Your task to perform on an android device: change timer sound Image 0: 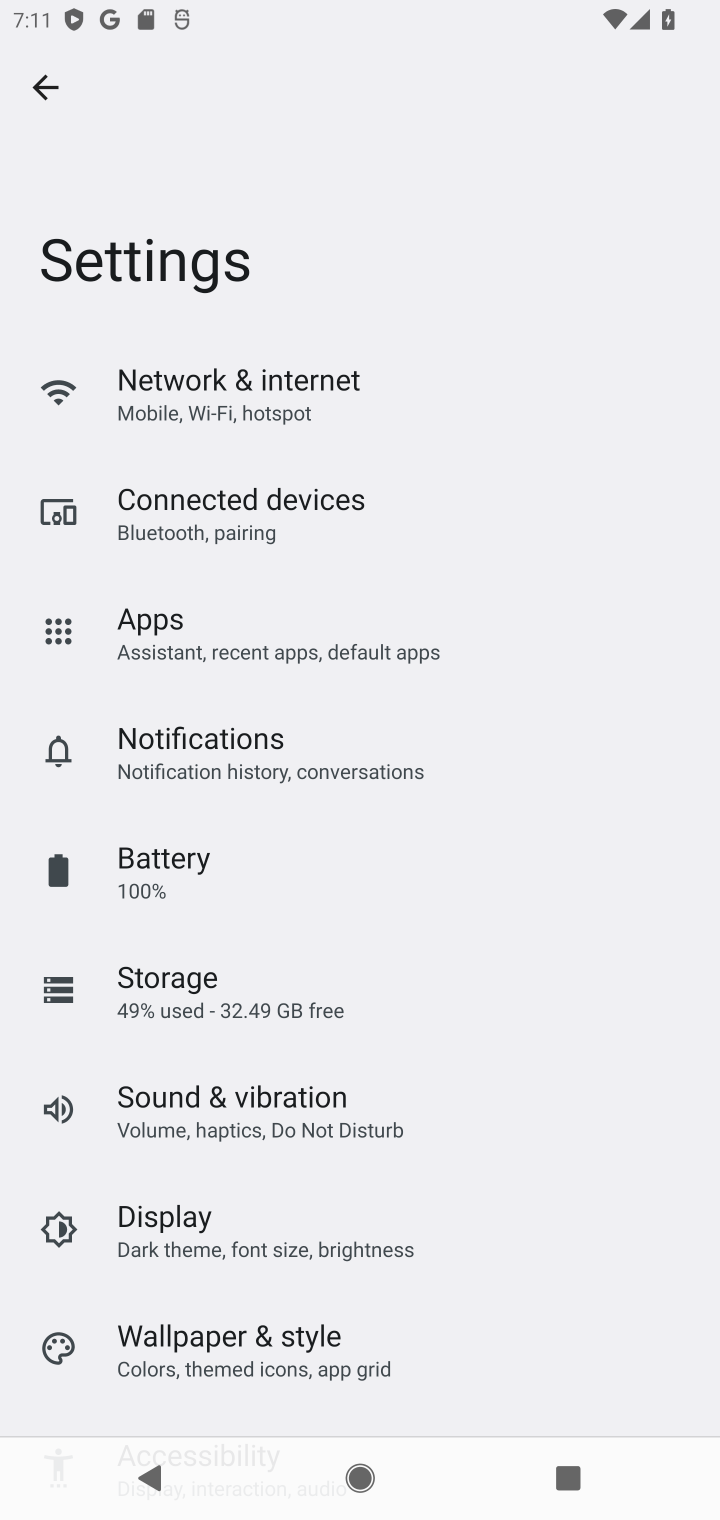
Step 0: press home button
Your task to perform on an android device: change timer sound Image 1: 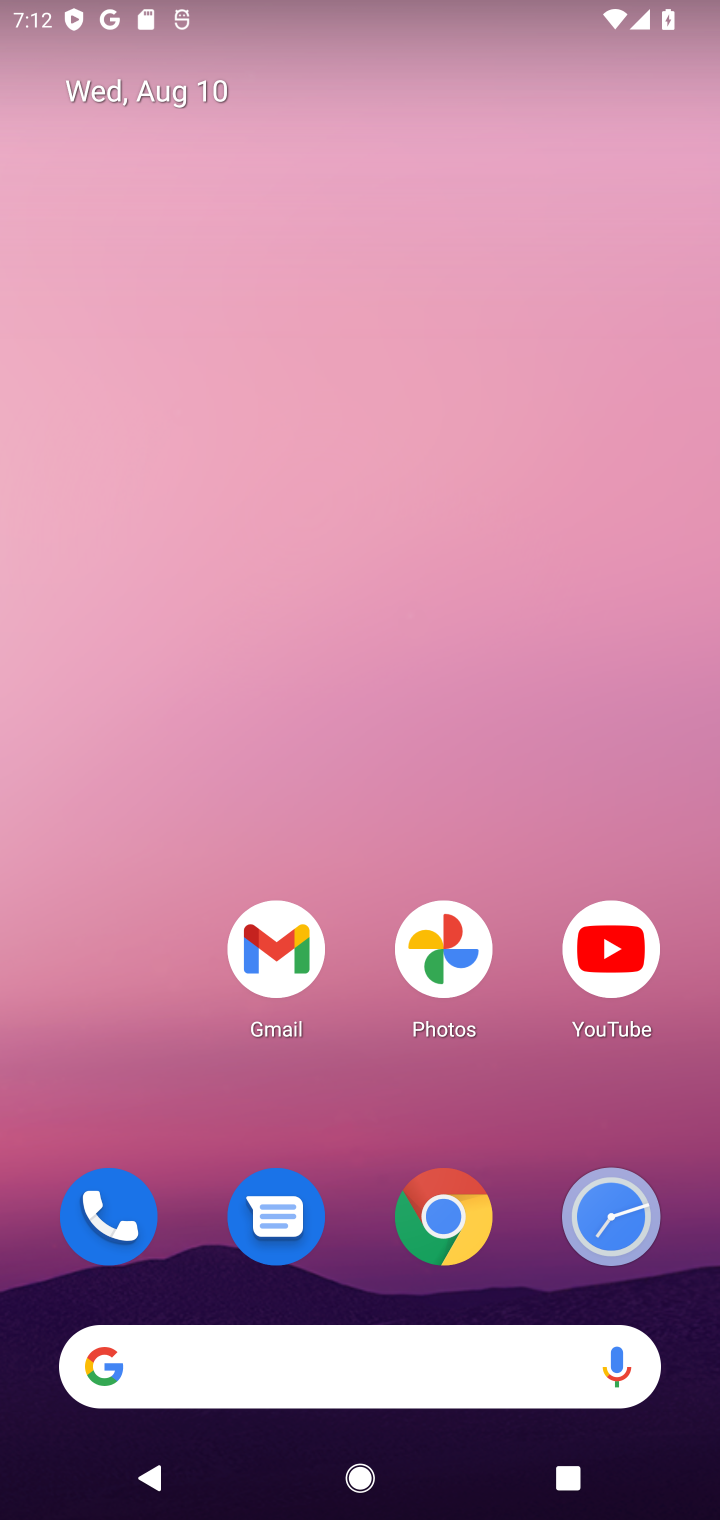
Step 1: click (595, 1204)
Your task to perform on an android device: change timer sound Image 2: 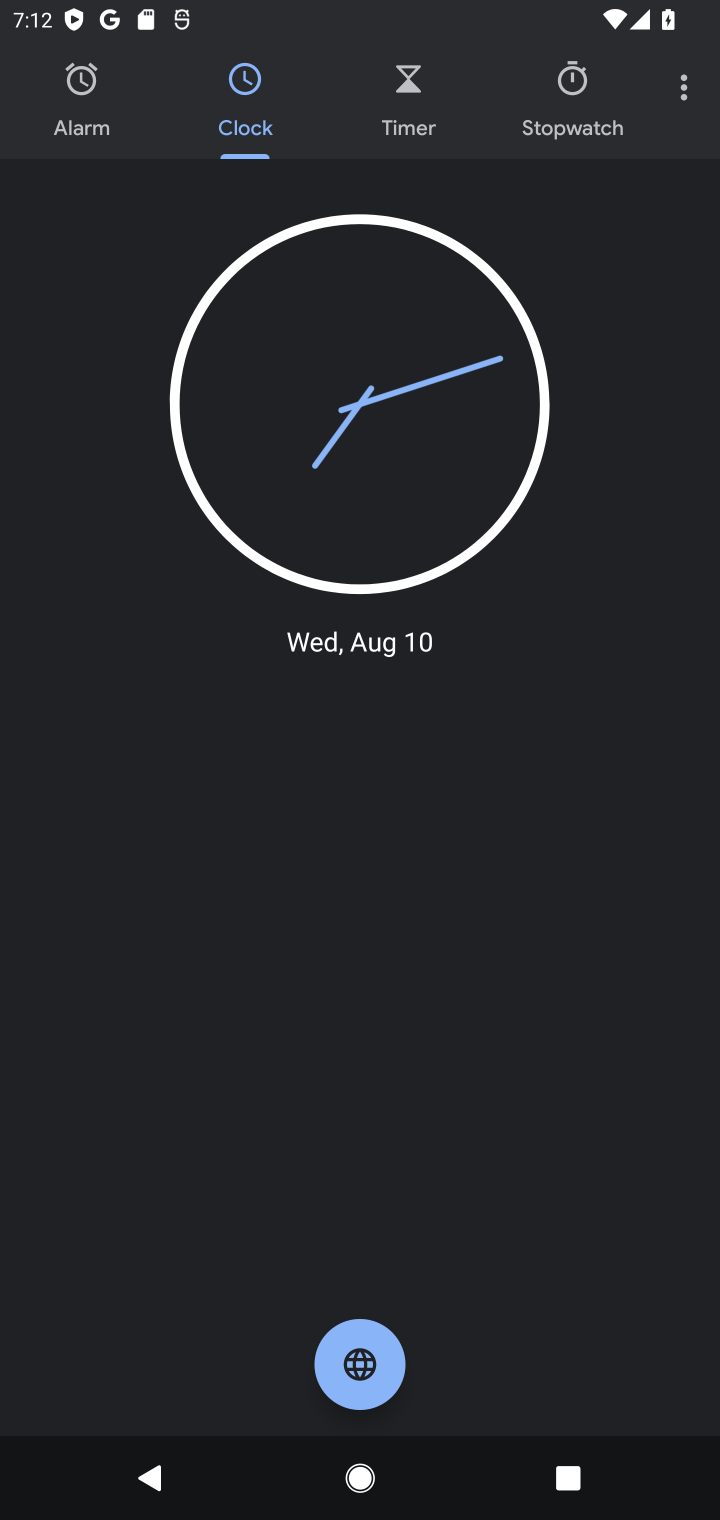
Step 2: click (681, 86)
Your task to perform on an android device: change timer sound Image 3: 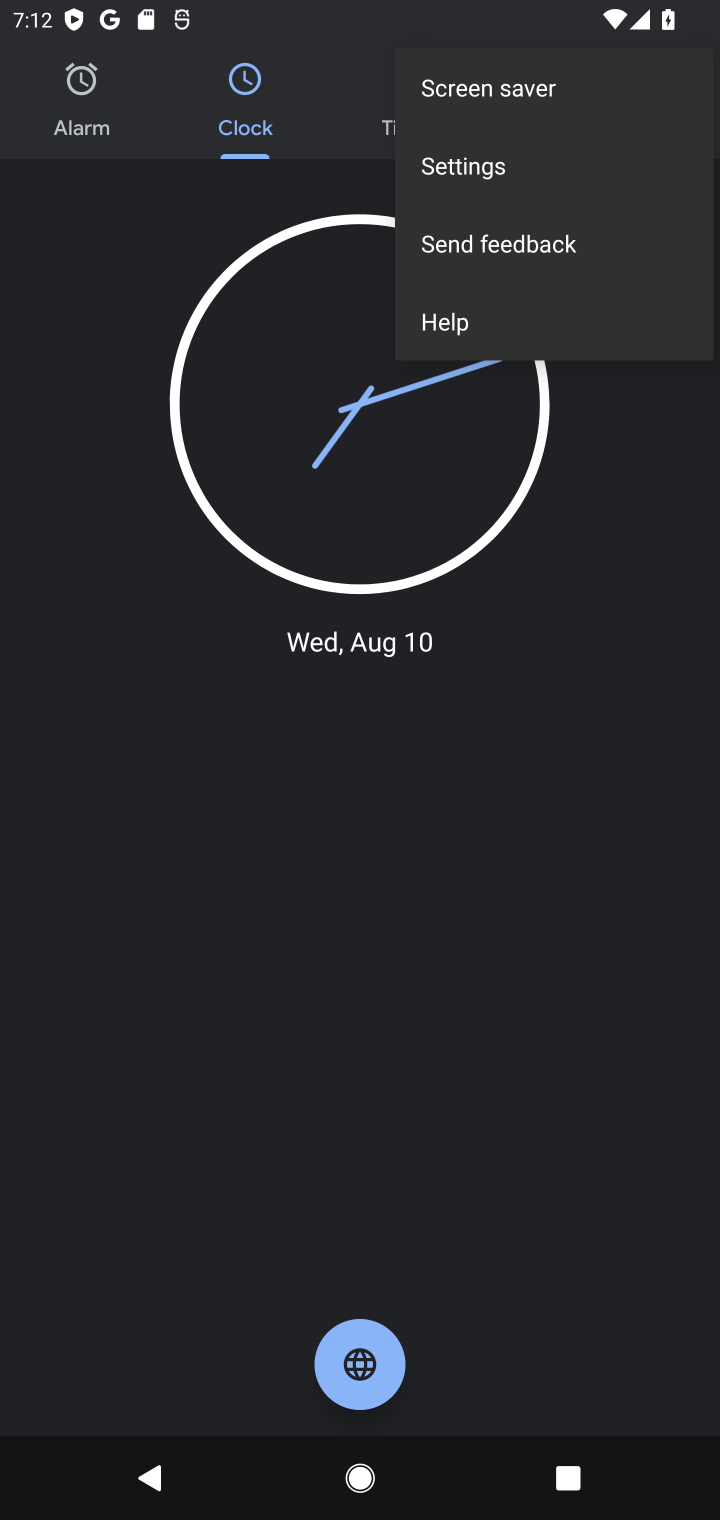
Step 3: click (475, 174)
Your task to perform on an android device: change timer sound Image 4: 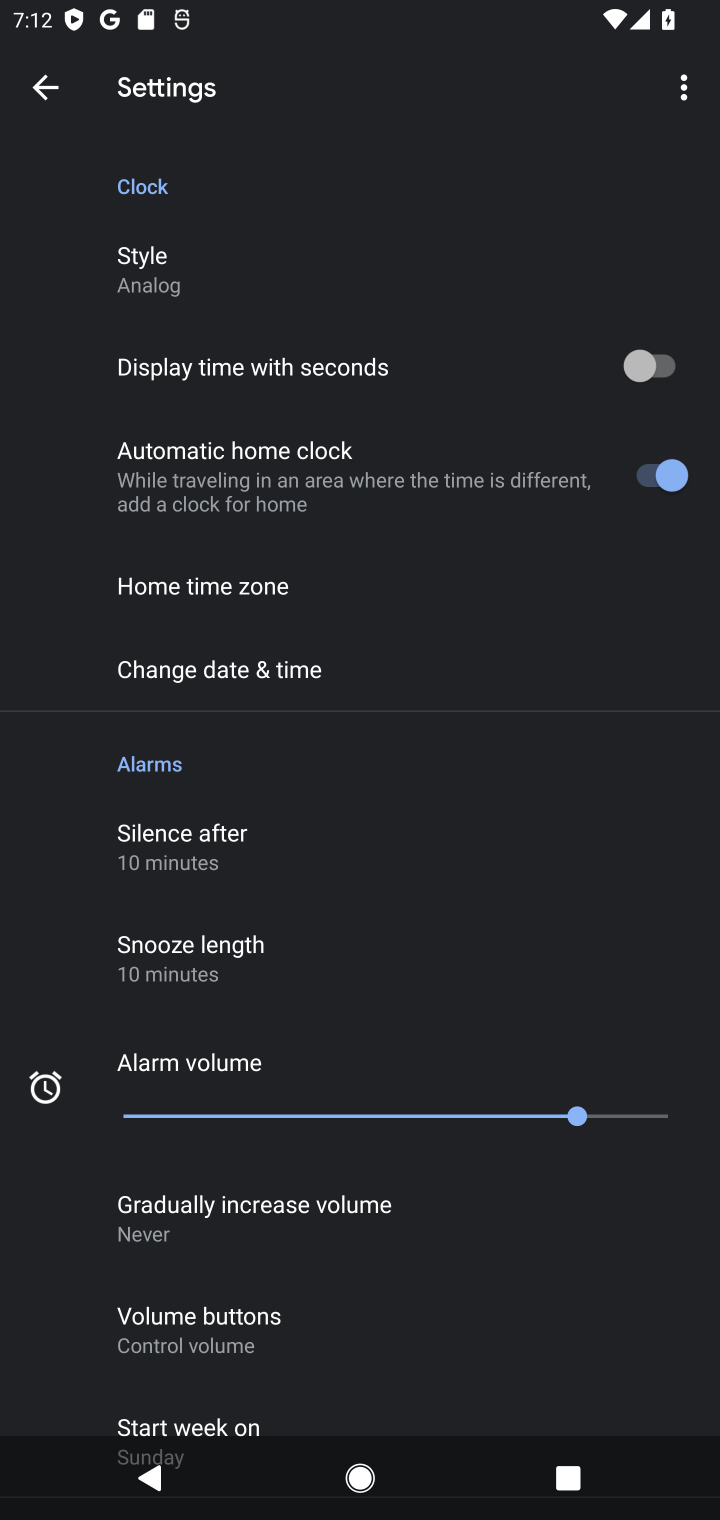
Step 4: drag from (0, 1388) to (228, 418)
Your task to perform on an android device: change timer sound Image 5: 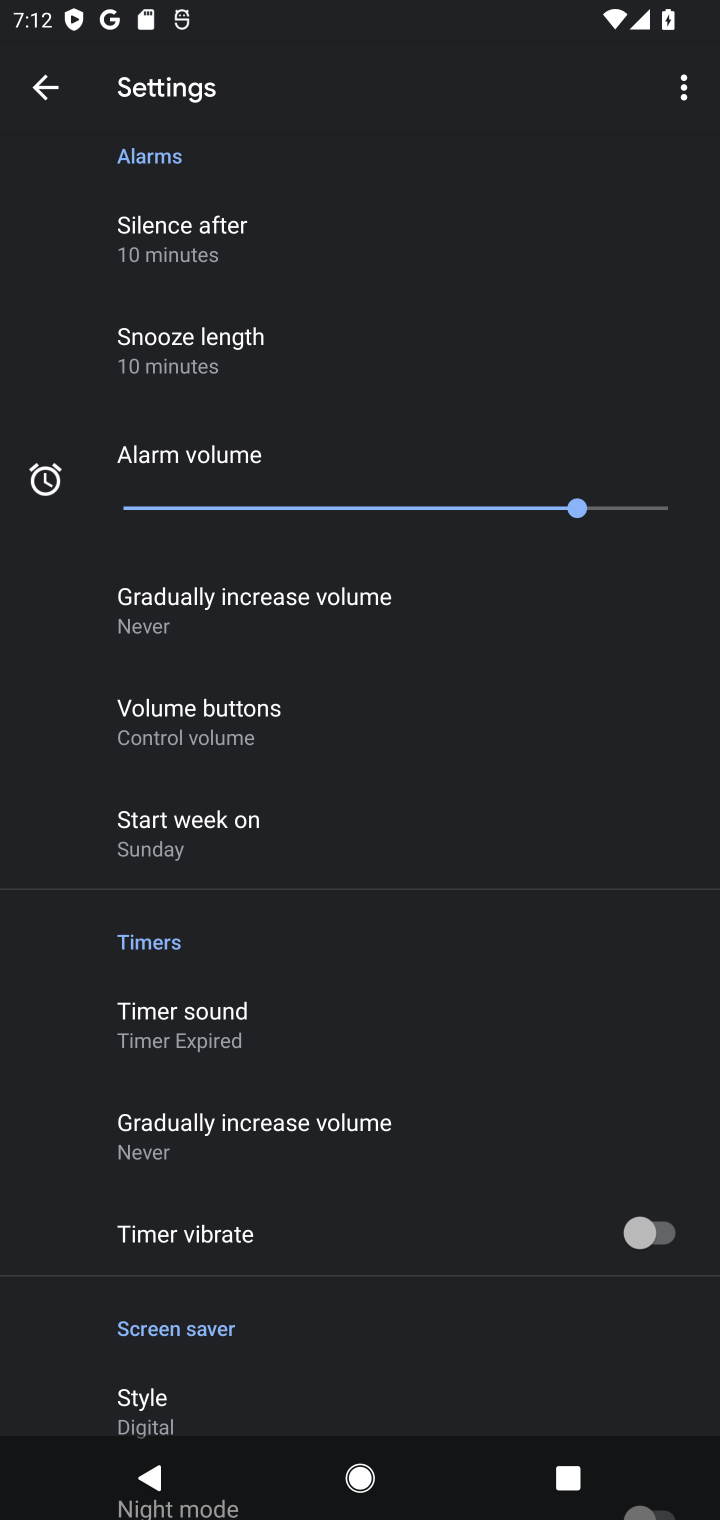
Step 5: click (242, 1042)
Your task to perform on an android device: change timer sound Image 6: 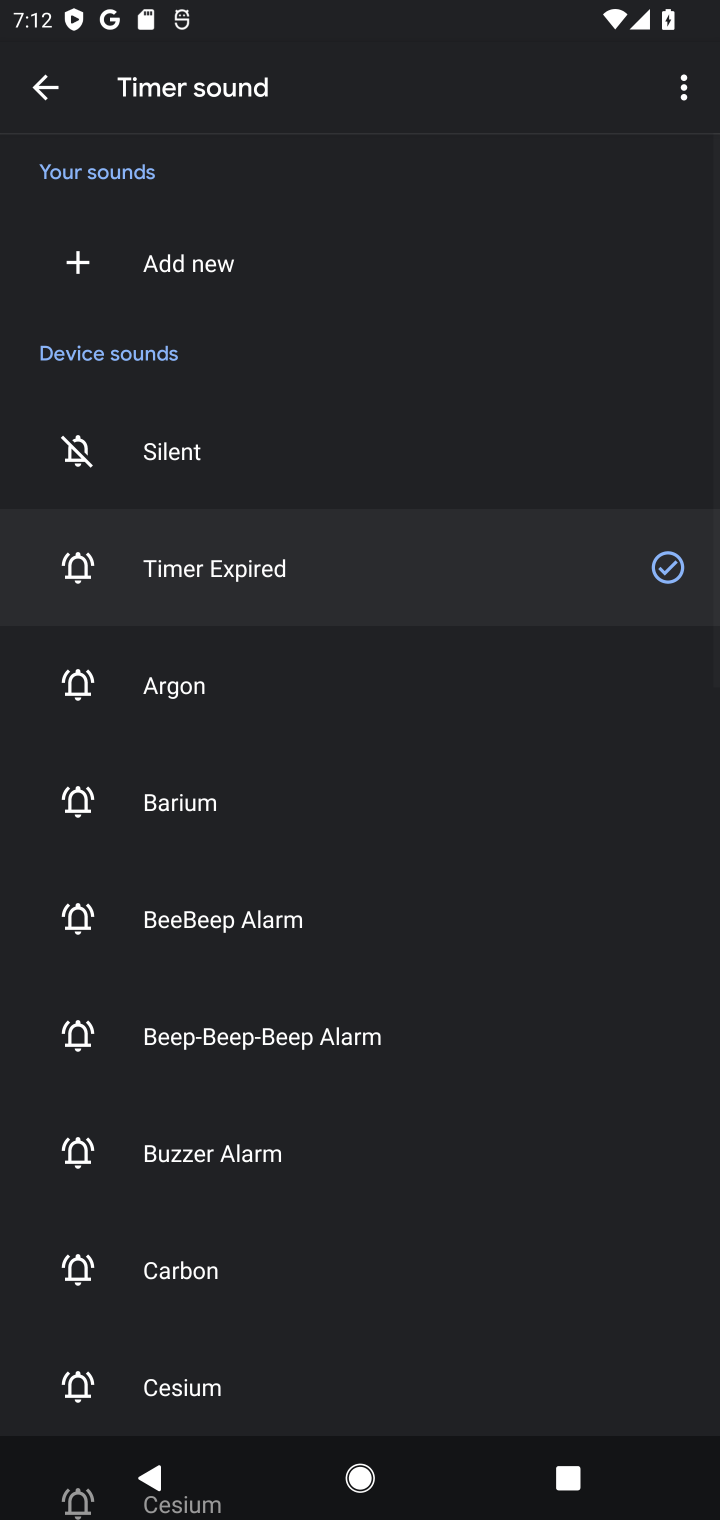
Step 6: click (186, 717)
Your task to perform on an android device: change timer sound Image 7: 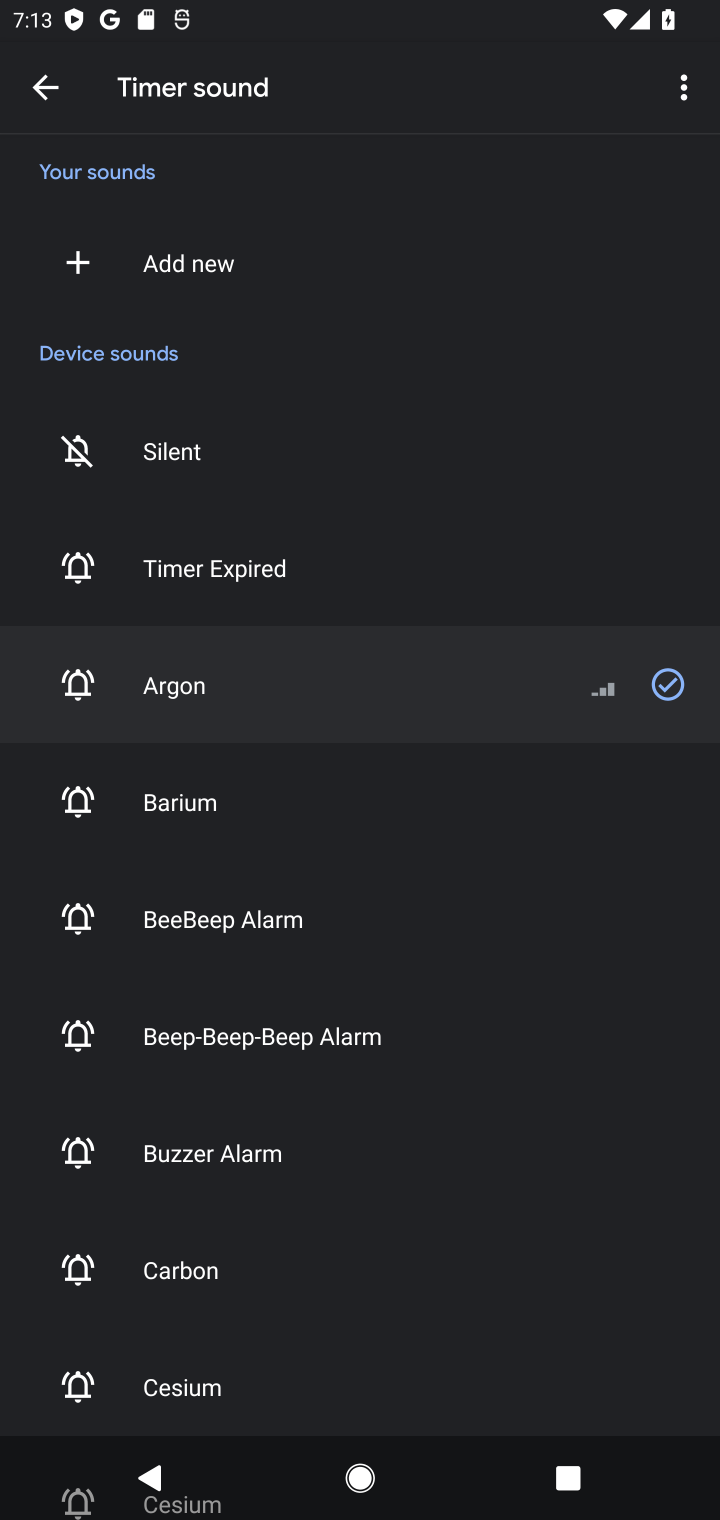
Step 7: task complete